Your task to perform on an android device: set default search engine in the chrome app Image 0: 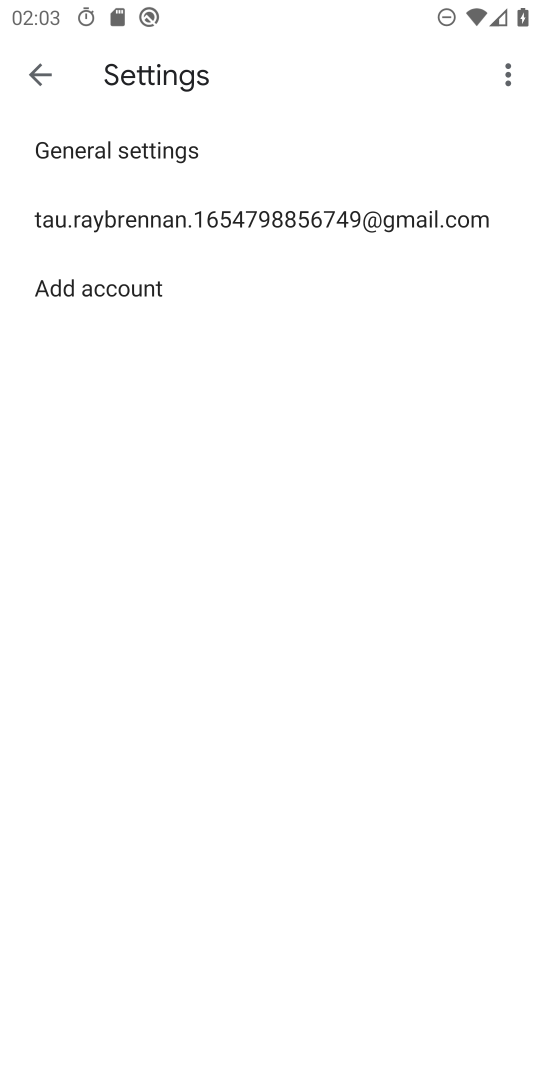
Step 0: press home button
Your task to perform on an android device: set default search engine in the chrome app Image 1: 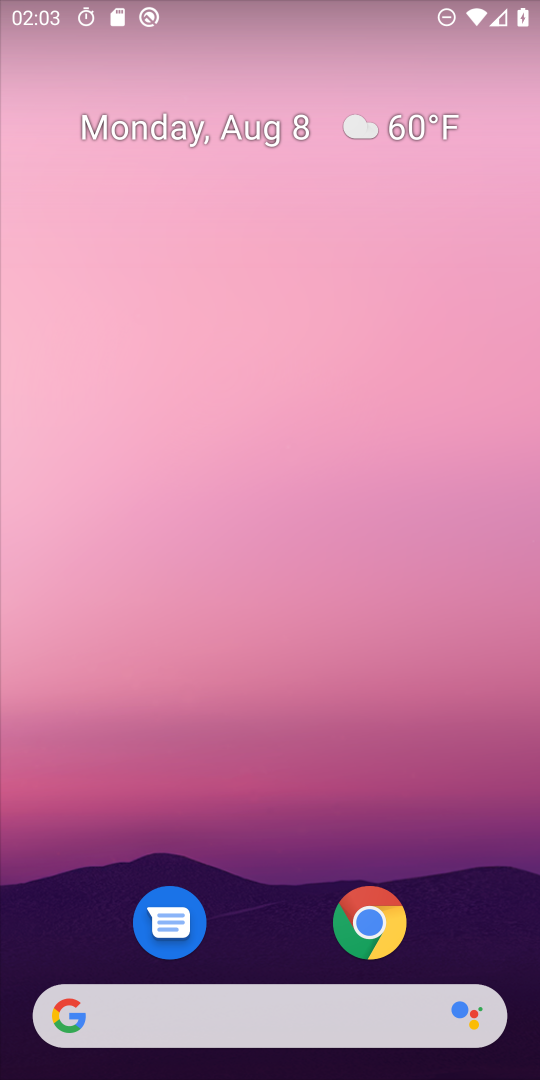
Step 1: drag from (402, 380) to (375, 111)
Your task to perform on an android device: set default search engine in the chrome app Image 2: 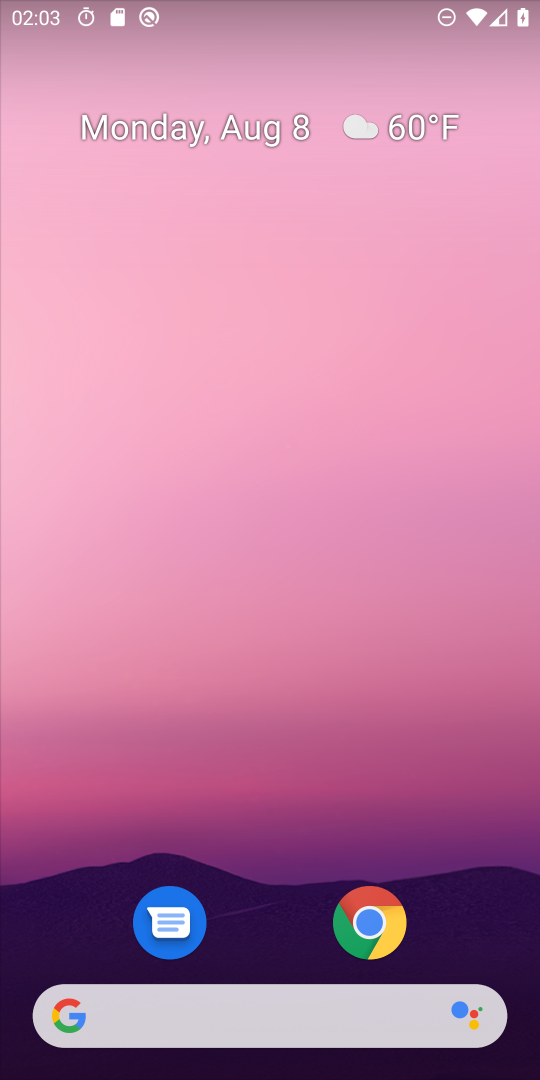
Step 2: drag from (468, 863) to (453, 99)
Your task to perform on an android device: set default search engine in the chrome app Image 3: 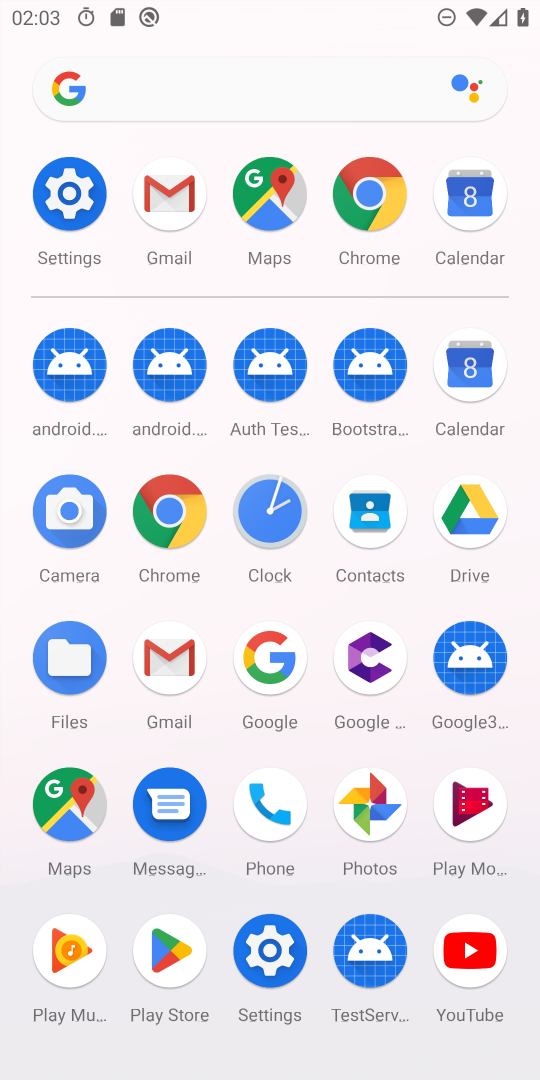
Step 3: click (171, 509)
Your task to perform on an android device: set default search engine in the chrome app Image 4: 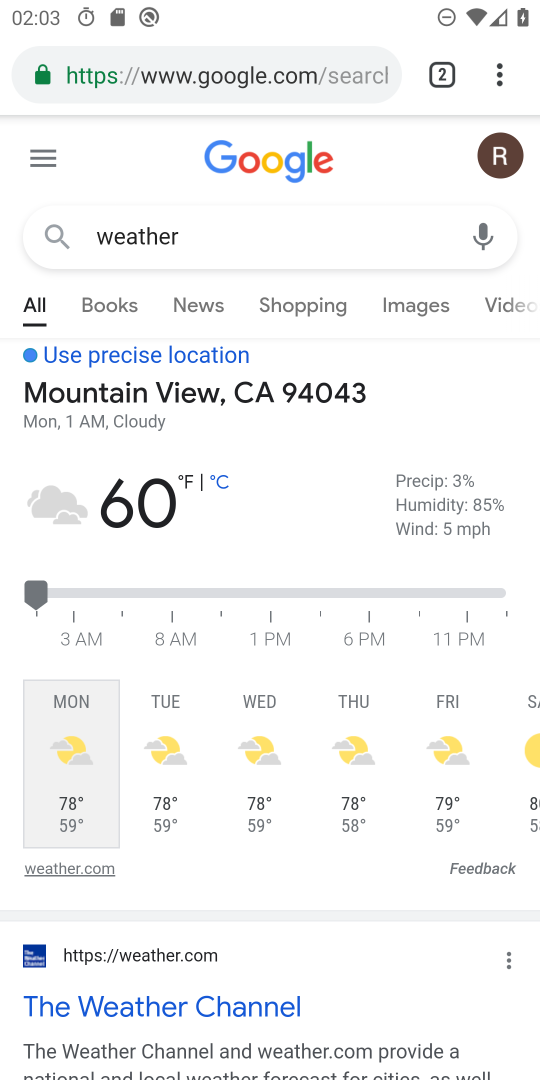
Step 4: drag from (511, 52) to (266, 914)
Your task to perform on an android device: set default search engine in the chrome app Image 5: 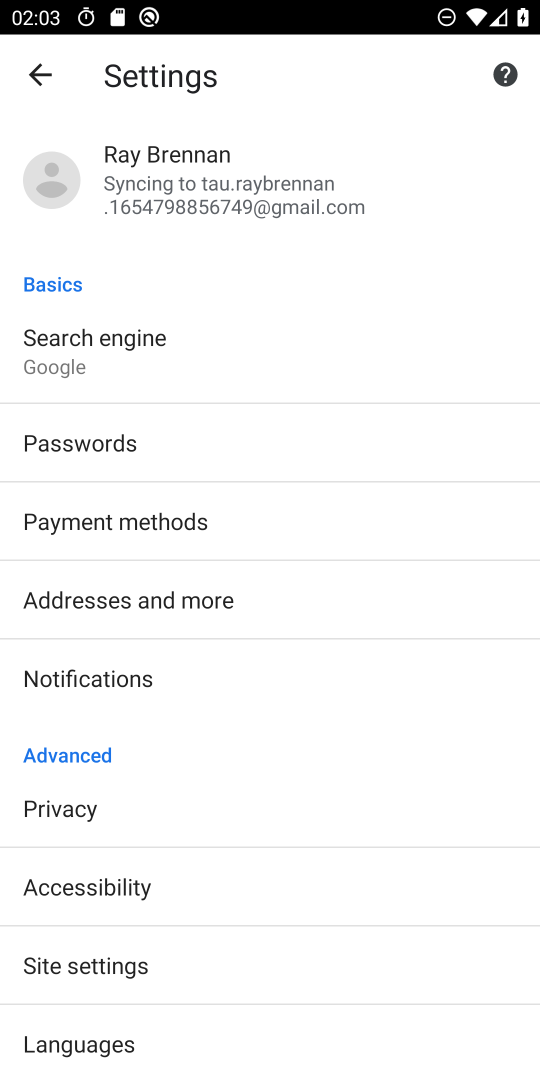
Step 5: click (146, 338)
Your task to perform on an android device: set default search engine in the chrome app Image 6: 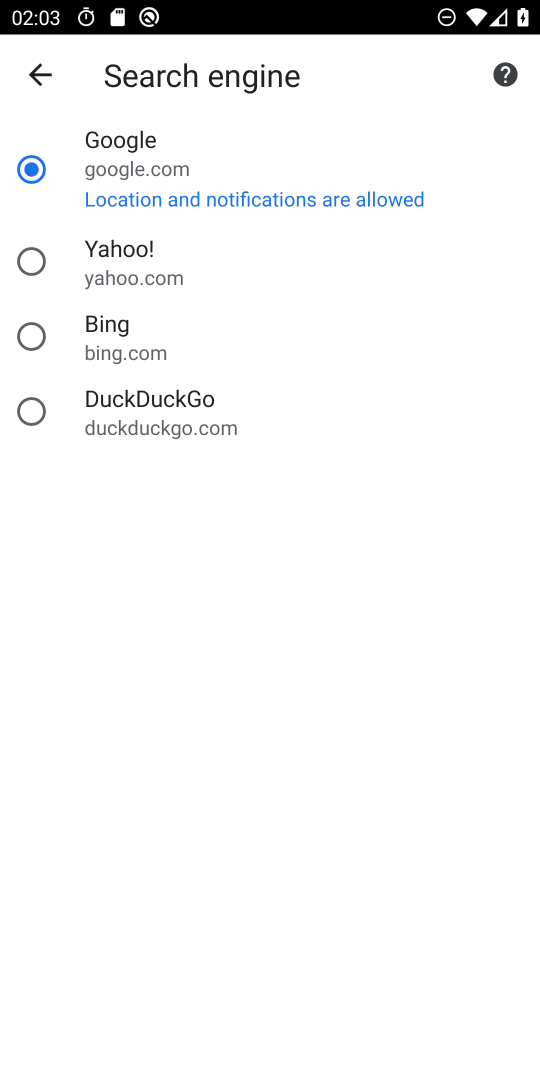
Step 6: task complete